Your task to perform on an android device: open app "Airtel Thanks" (install if not already installed) and enter user name: "acclaimed@inbox.com" and password: "dichotomize" Image 0: 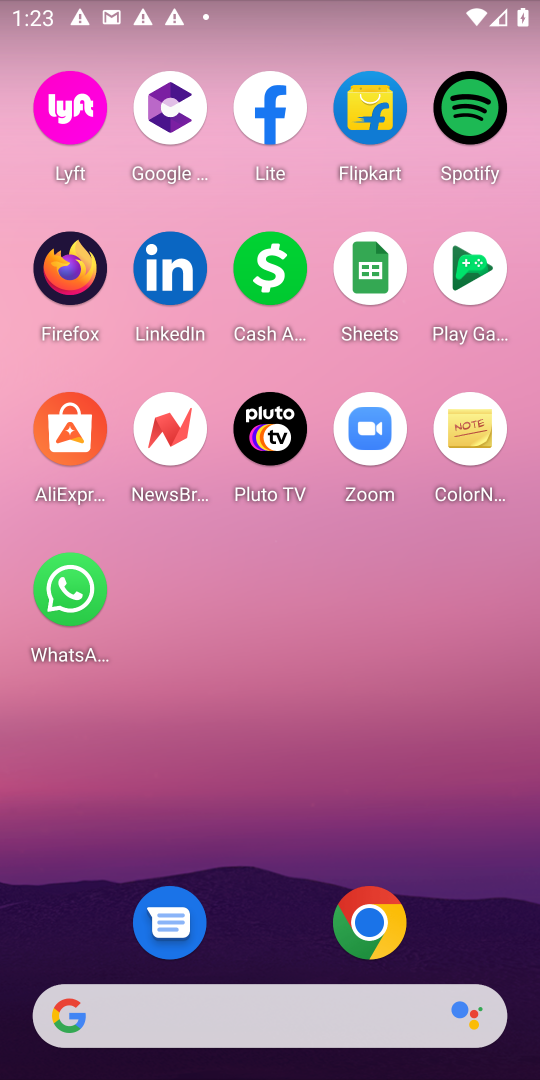
Step 0: drag from (252, 945) to (243, 300)
Your task to perform on an android device: open app "Airtel Thanks" (install if not already installed) and enter user name: "acclaimed@inbox.com" and password: "dichotomize" Image 1: 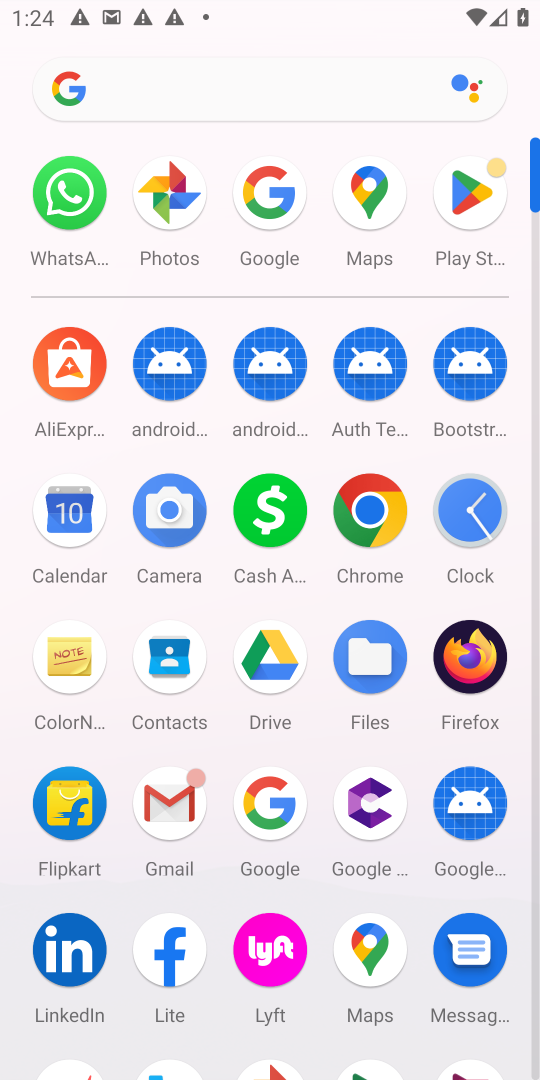
Step 1: click (484, 190)
Your task to perform on an android device: open app "Airtel Thanks" (install if not already installed) and enter user name: "acclaimed@inbox.com" and password: "dichotomize" Image 2: 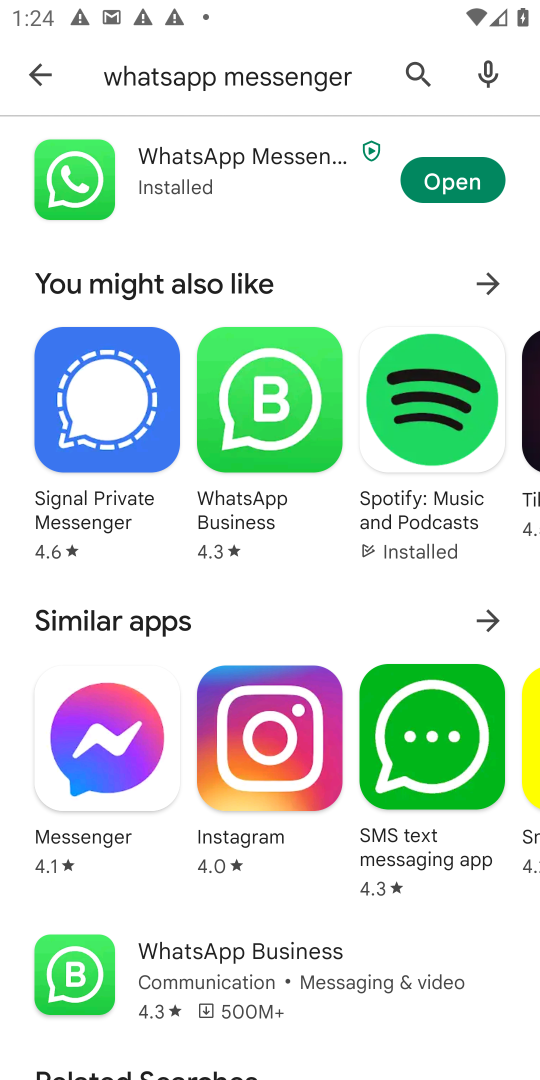
Step 2: click (34, 73)
Your task to perform on an android device: open app "Airtel Thanks" (install if not already installed) and enter user name: "acclaimed@inbox.com" and password: "dichotomize" Image 3: 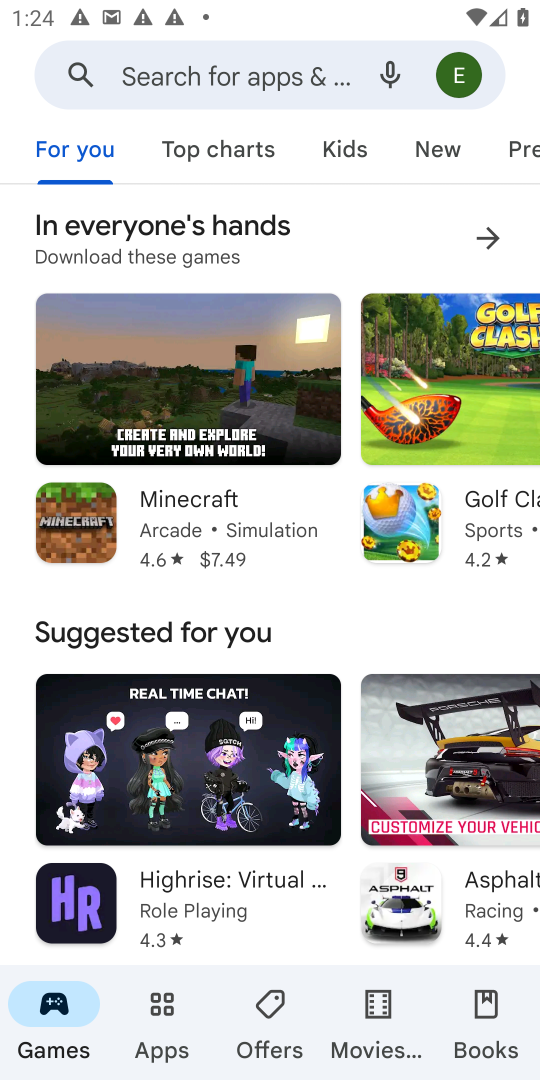
Step 3: click (269, 73)
Your task to perform on an android device: open app "Airtel Thanks" (install if not already installed) and enter user name: "acclaimed@inbox.com" and password: "dichotomize" Image 4: 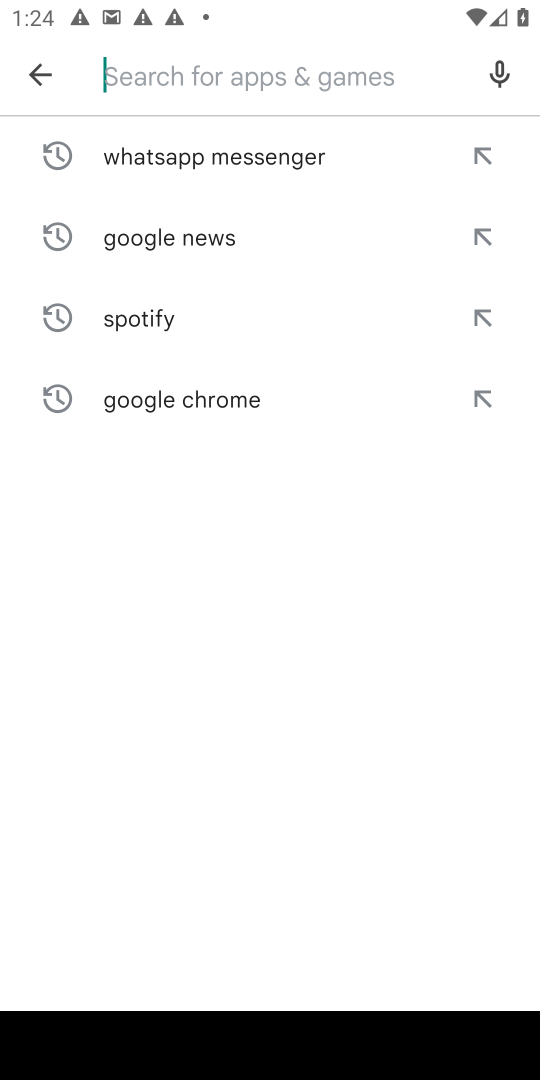
Step 4: type "Airtel Thanks"
Your task to perform on an android device: open app "Airtel Thanks" (install if not already installed) and enter user name: "acclaimed@inbox.com" and password: "dichotomize" Image 5: 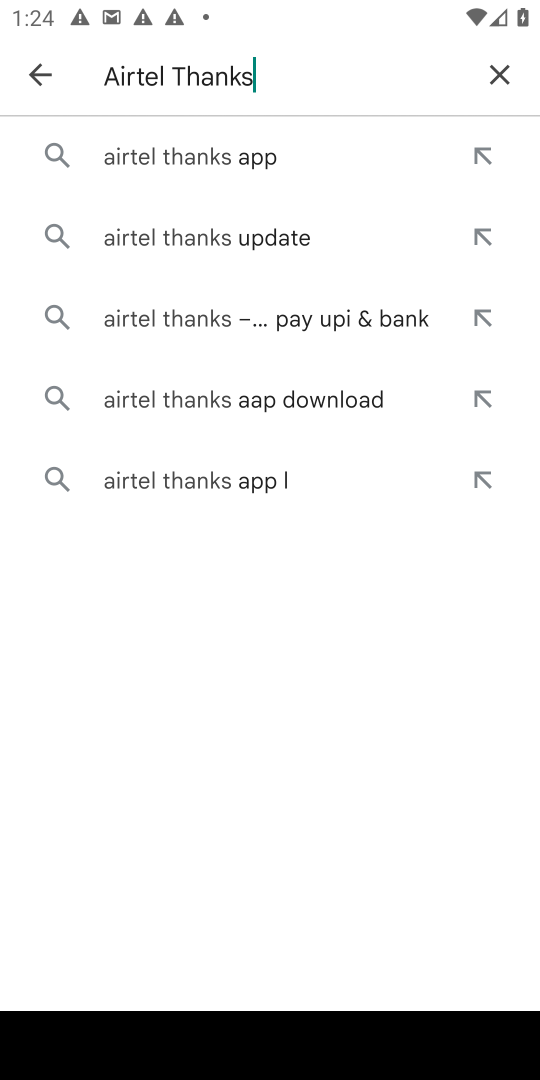
Step 5: click (126, 145)
Your task to perform on an android device: open app "Airtel Thanks" (install if not already installed) and enter user name: "acclaimed@inbox.com" and password: "dichotomize" Image 6: 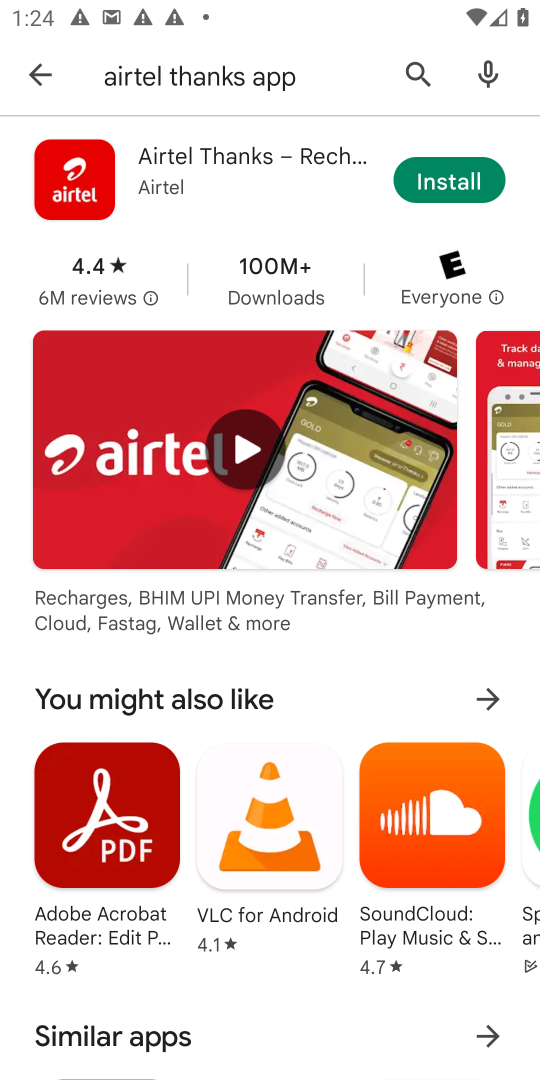
Step 6: click (424, 179)
Your task to perform on an android device: open app "Airtel Thanks" (install if not already installed) and enter user name: "acclaimed@inbox.com" and password: "dichotomize" Image 7: 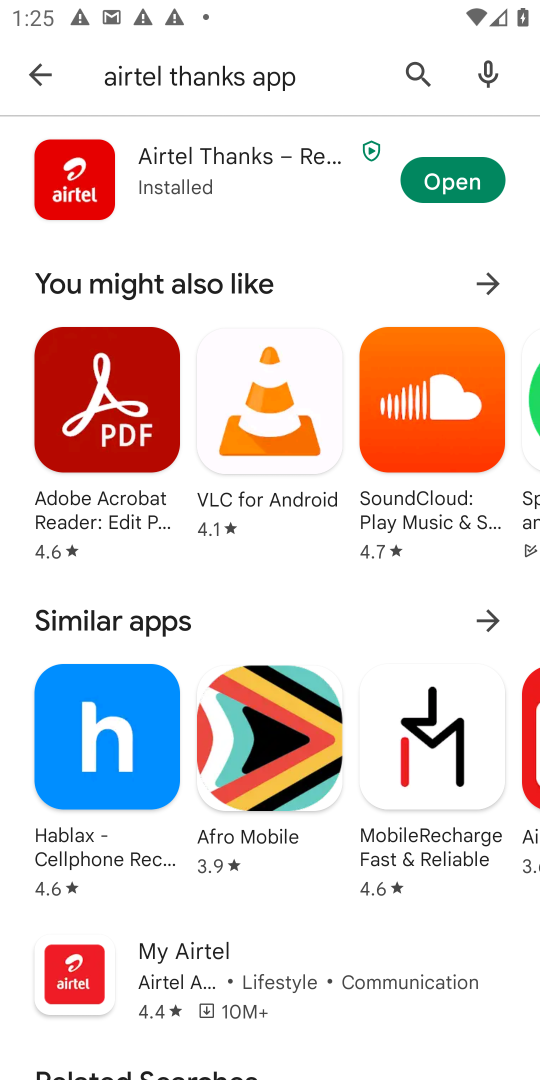
Step 7: click (432, 192)
Your task to perform on an android device: open app "Airtel Thanks" (install if not already installed) and enter user name: "acclaimed@inbox.com" and password: "dichotomize" Image 8: 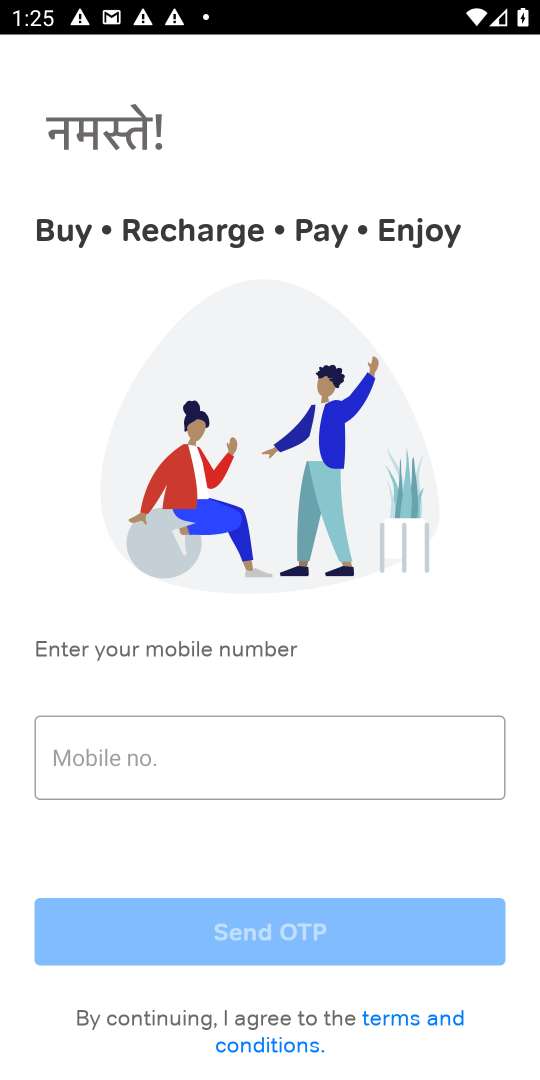
Step 8: drag from (373, 863) to (373, 570)
Your task to perform on an android device: open app "Airtel Thanks" (install if not already installed) and enter user name: "acclaimed@inbox.com" and password: "dichotomize" Image 9: 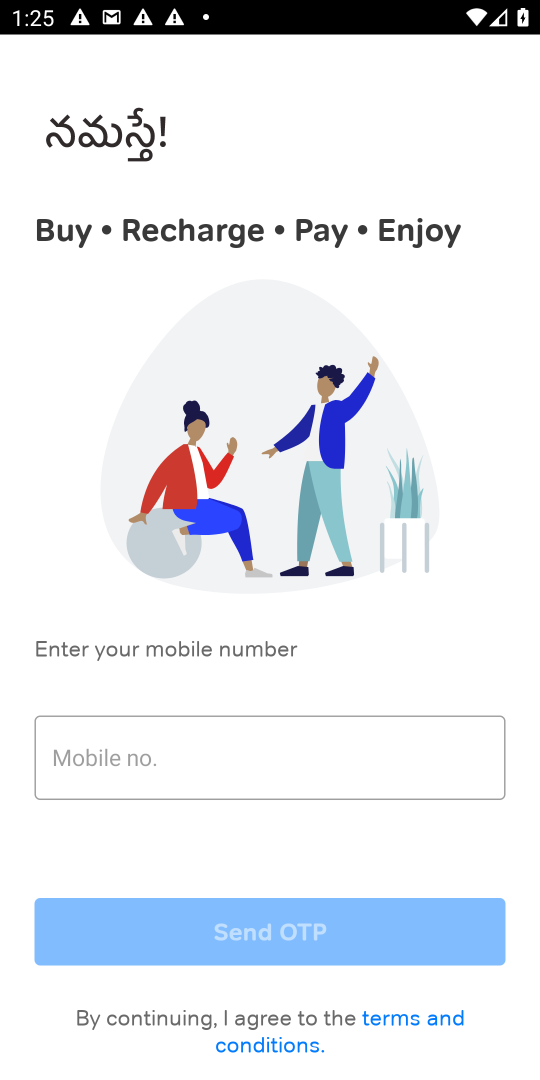
Step 9: click (212, 568)
Your task to perform on an android device: open app "Airtel Thanks" (install if not already installed) and enter user name: "acclaimed@inbox.com" and password: "dichotomize" Image 10: 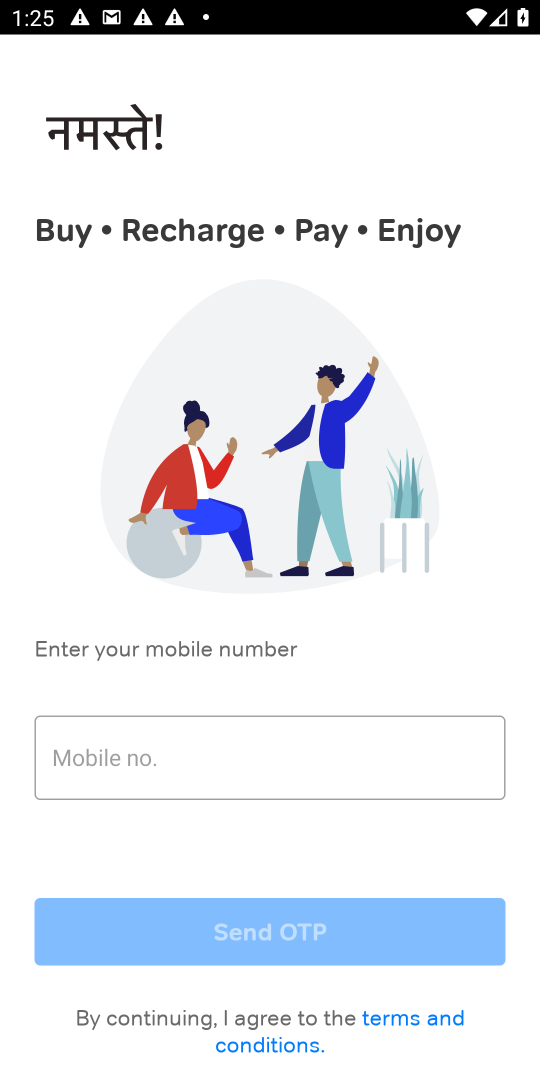
Step 10: task complete